Your task to perform on an android device: Show me recent news Image 0: 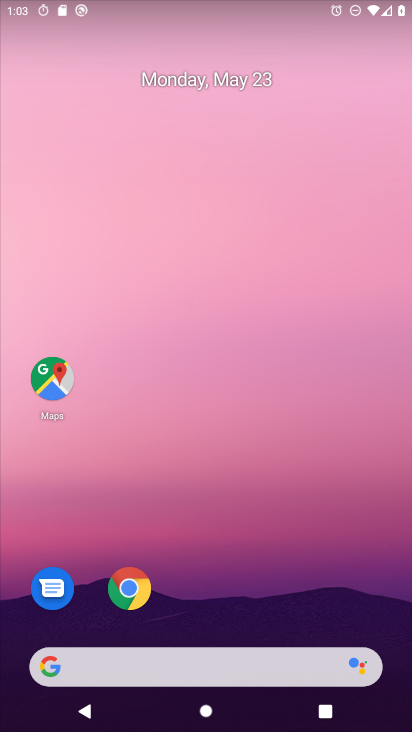
Step 0: drag from (256, 677) to (232, 144)
Your task to perform on an android device: Show me recent news Image 1: 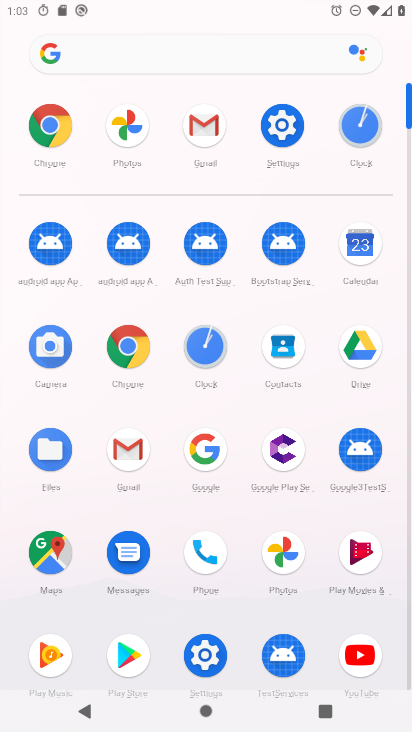
Step 1: click (158, 41)
Your task to perform on an android device: Show me recent news Image 2: 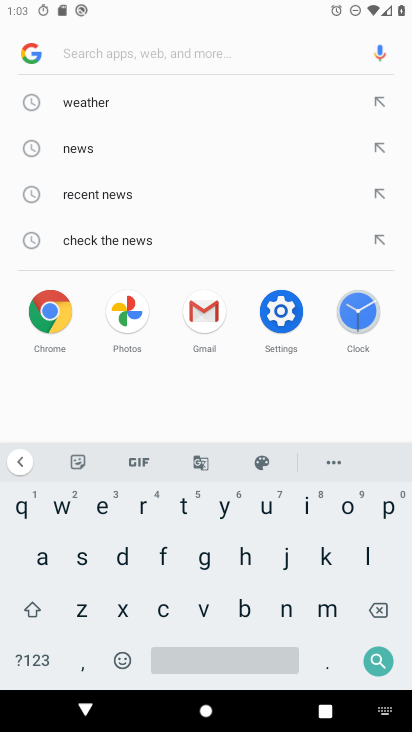
Step 2: click (132, 202)
Your task to perform on an android device: Show me recent news Image 3: 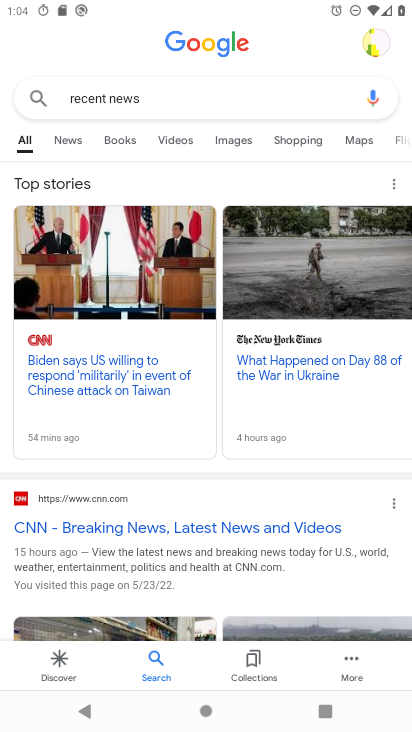
Step 3: task complete